Your task to perform on an android device: turn off smart reply in the gmail app Image 0: 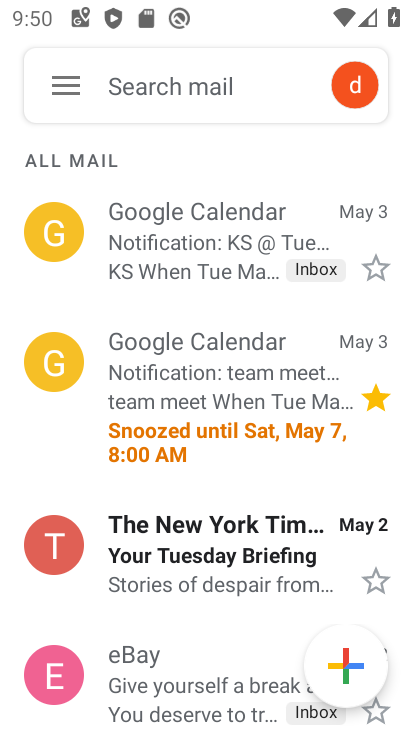
Step 0: click (52, 82)
Your task to perform on an android device: turn off smart reply in the gmail app Image 1: 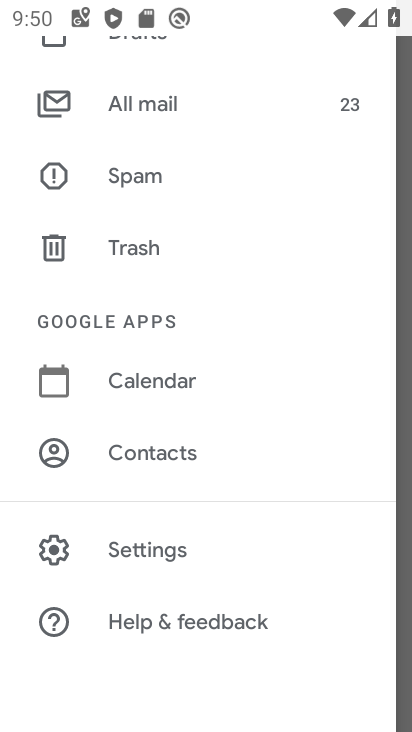
Step 1: click (157, 556)
Your task to perform on an android device: turn off smart reply in the gmail app Image 2: 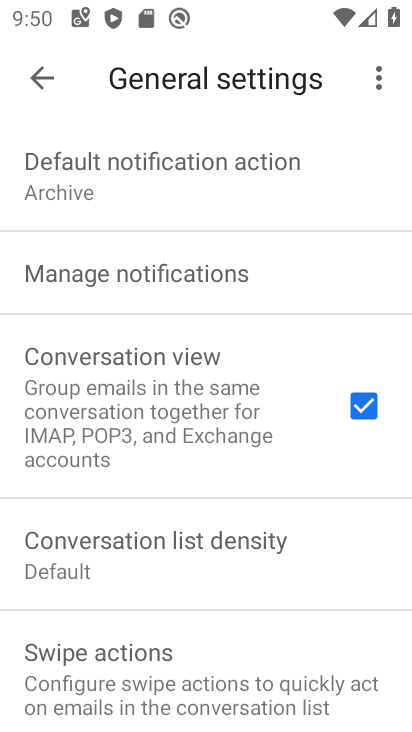
Step 2: click (31, 79)
Your task to perform on an android device: turn off smart reply in the gmail app Image 3: 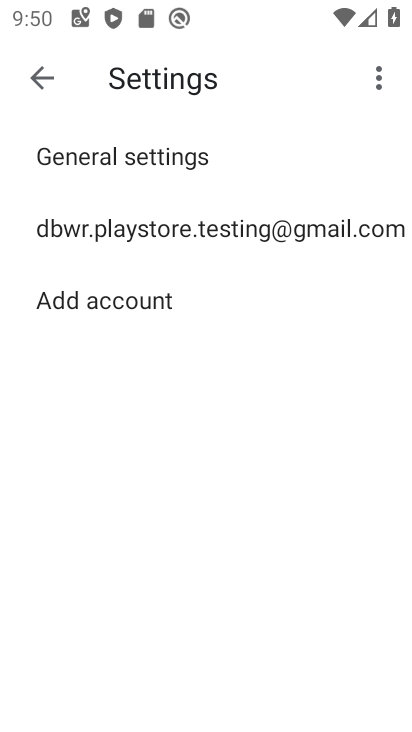
Step 3: click (225, 230)
Your task to perform on an android device: turn off smart reply in the gmail app Image 4: 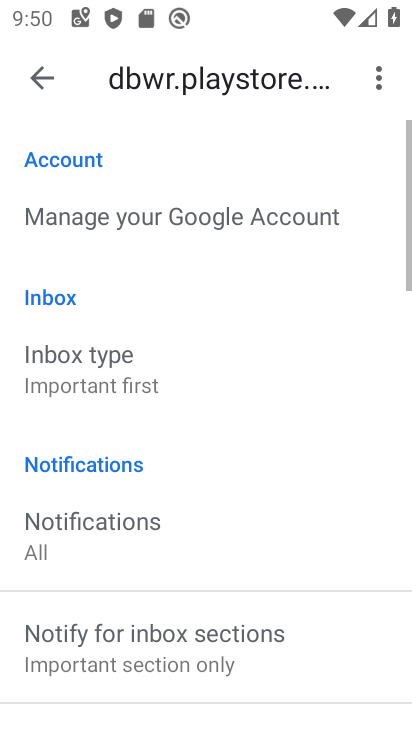
Step 4: drag from (165, 633) to (246, 196)
Your task to perform on an android device: turn off smart reply in the gmail app Image 5: 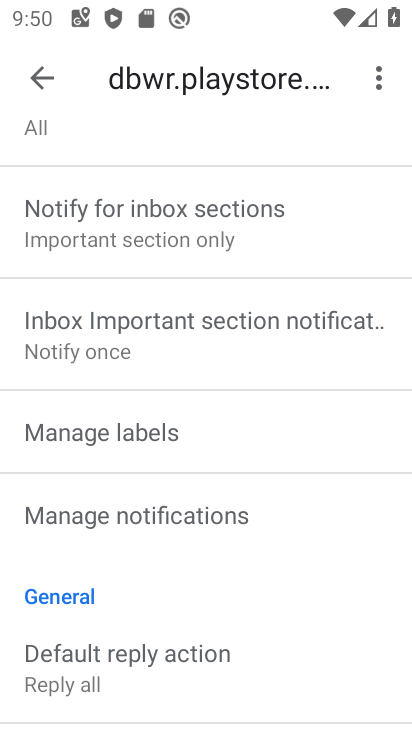
Step 5: drag from (228, 647) to (263, 311)
Your task to perform on an android device: turn off smart reply in the gmail app Image 6: 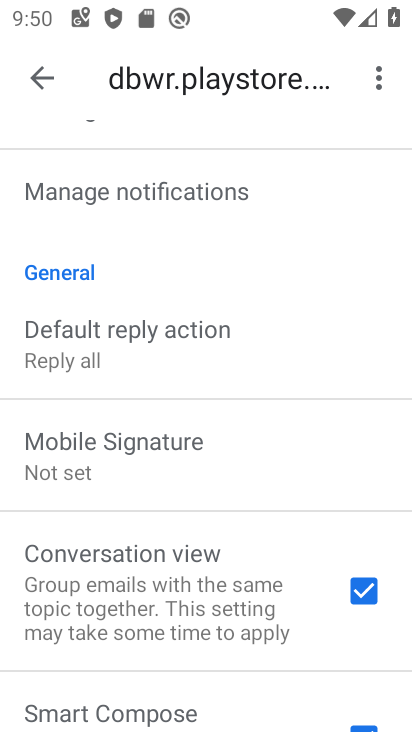
Step 6: drag from (206, 545) to (249, 259)
Your task to perform on an android device: turn off smart reply in the gmail app Image 7: 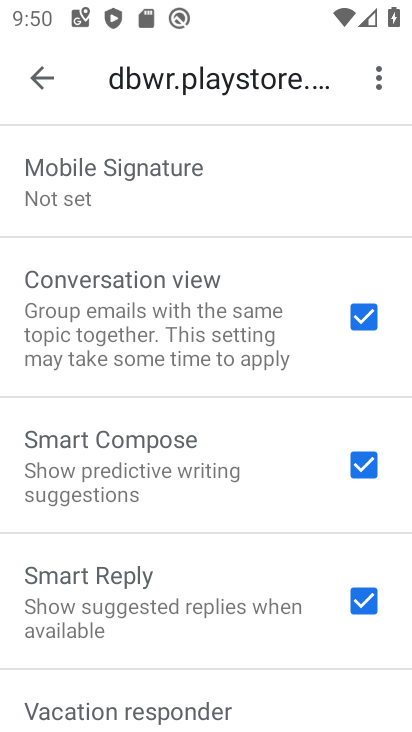
Step 7: click (343, 600)
Your task to perform on an android device: turn off smart reply in the gmail app Image 8: 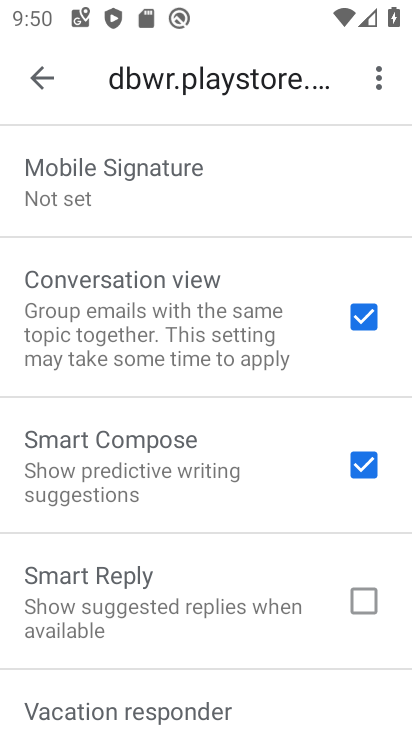
Step 8: task complete